Your task to perform on an android device: turn on the 12-hour format for clock Image 0: 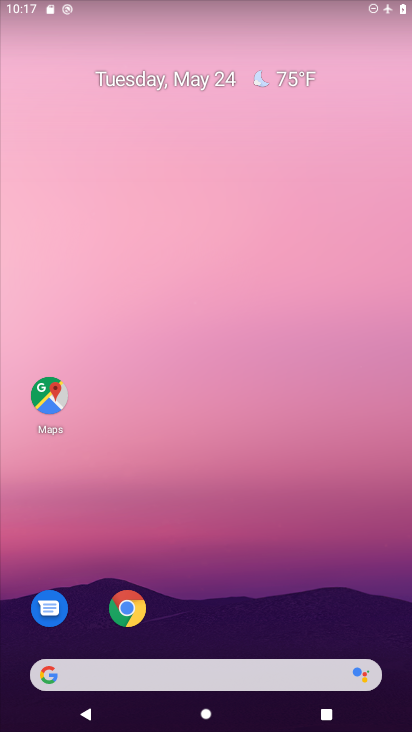
Step 0: drag from (274, 579) to (235, 21)
Your task to perform on an android device: turn on the 12-hour format for clock Image 1: 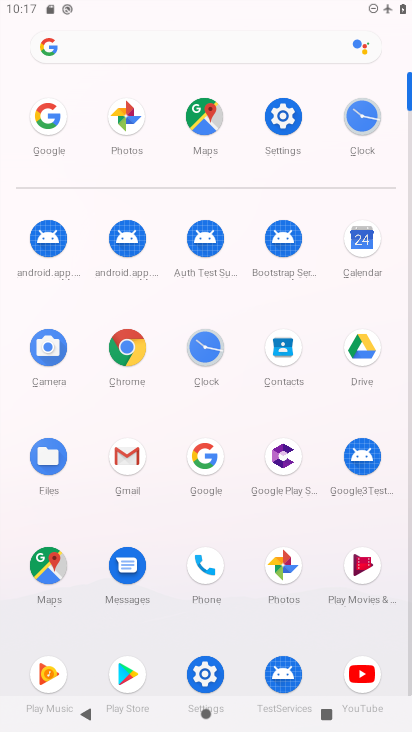
Step 1: click (210, 352)
Your task to perform on an android device: turn on the 12-hour format for clock Image 2: 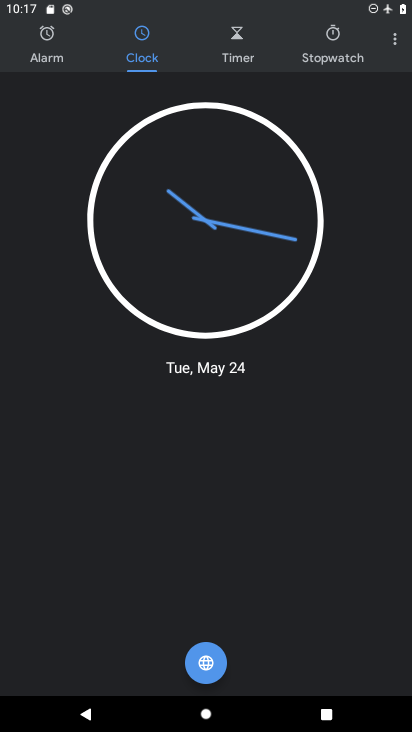
Step 2: click (401, 34)
Your task to perform on an android device: turn on the 12-hour format for clock Image 3: 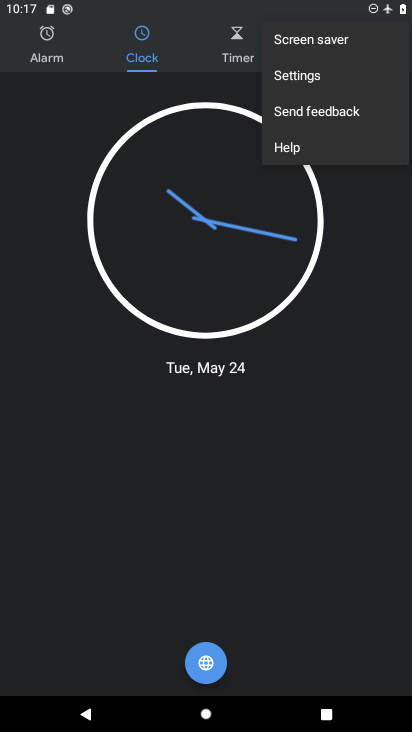
Step 3: click (322, 73)
Your task to perform on an android device: turn on the 12-hour format for clock Image 4: 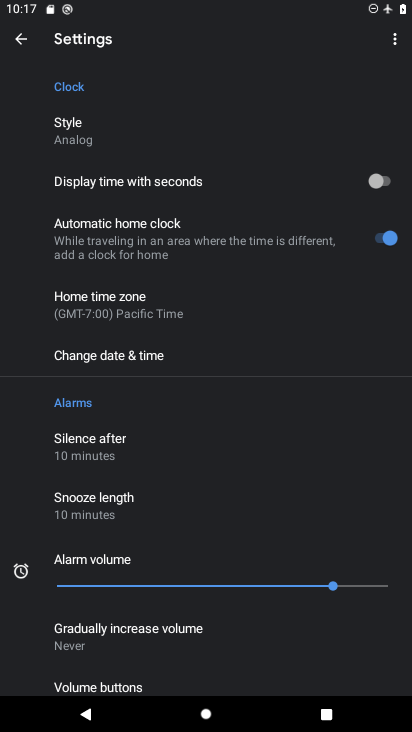
Step 4: click (142, 354)
Your task to perform on an android device: turn on the 12-hour format for clock Image 5: 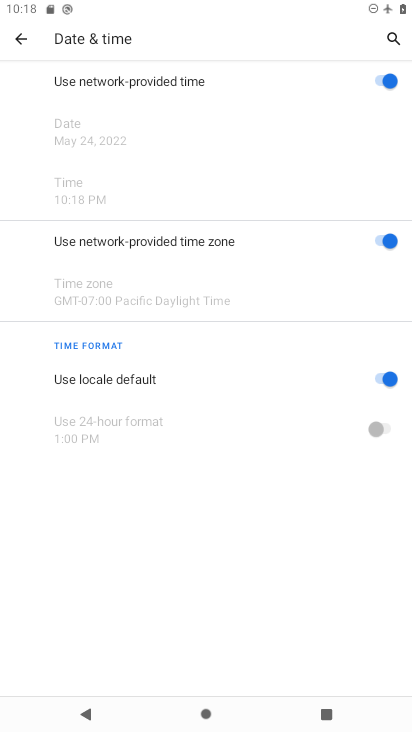
Step 5: task complete